Your task to perform on an android device: Open Chrome and go to the settings page Image 0: 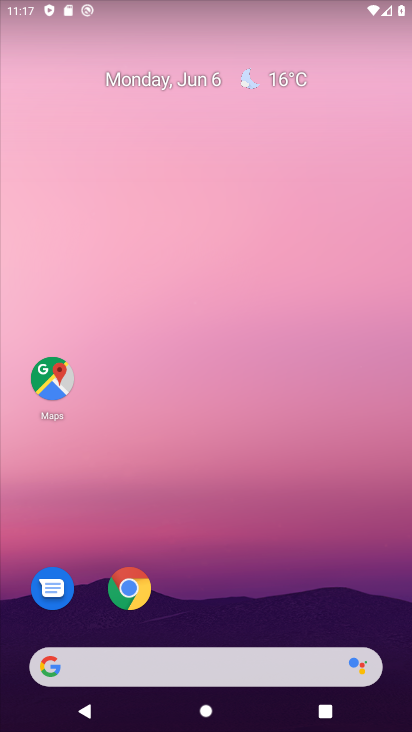
Step 0: click (127, 588)
Your task to perform on an android device: Open Chrome and go to the settings page Image 1: 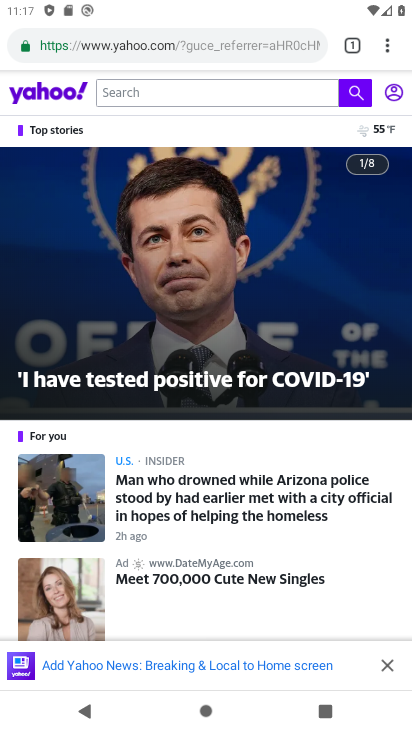
Step 1: click (388, 46)
Your task to perform on an android device: Open Chrome and go to the settings page Image 2: 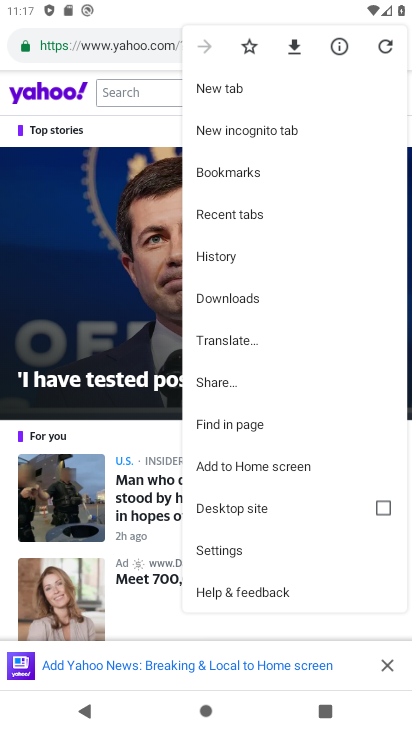
Step 2: click (234, 551)
Your task to perform on an android device: Open Chrome and go to the settings page Image 3: 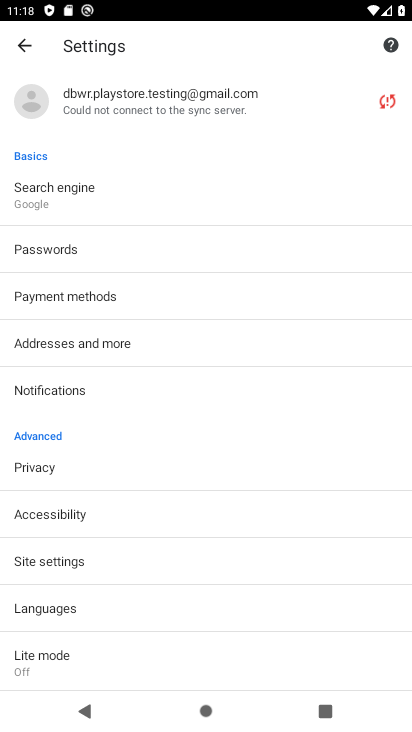
Step 3: task complete